Your task to perform on an android device: Open Youtube and go to "Your channel" Image 0: 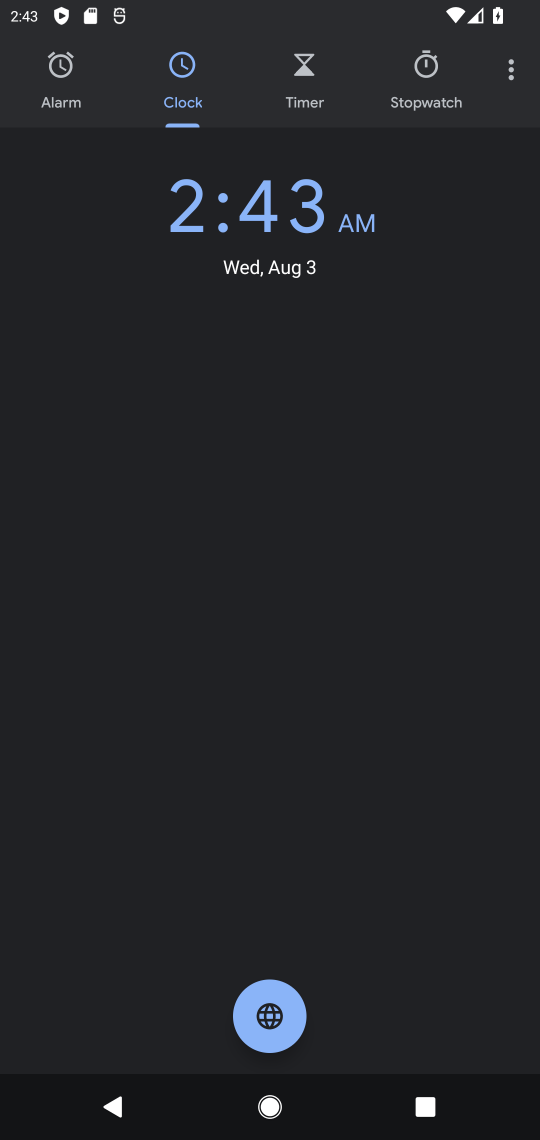
Step 0: task complete